Your task to perform on an android device: What's the weather going to be tomorrow? Image 0: 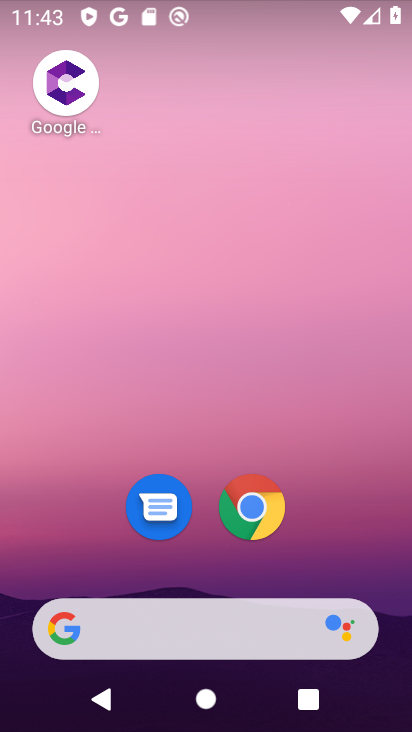
Step 0: click (167, 616)
Your task to perform on an android device: What's the weather going to be tomorrow? Image 1: 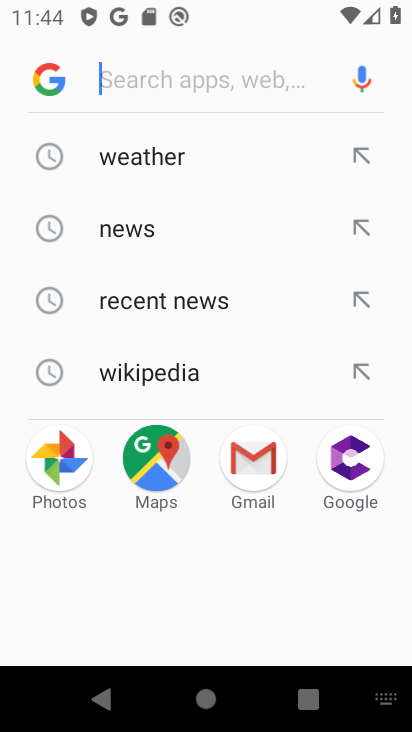
Step 1: type " What's the weather going to be tomorrow?"
Your task to perform on an android device: What's the weather going to be tomorrow? Image 2: 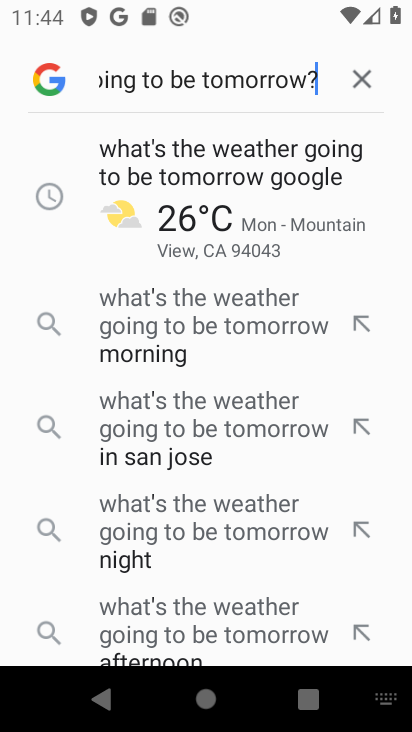
Step 2: click (284, 176)
Your task to perform on an android device: What's the weather going to be tomorrow? Image 3: 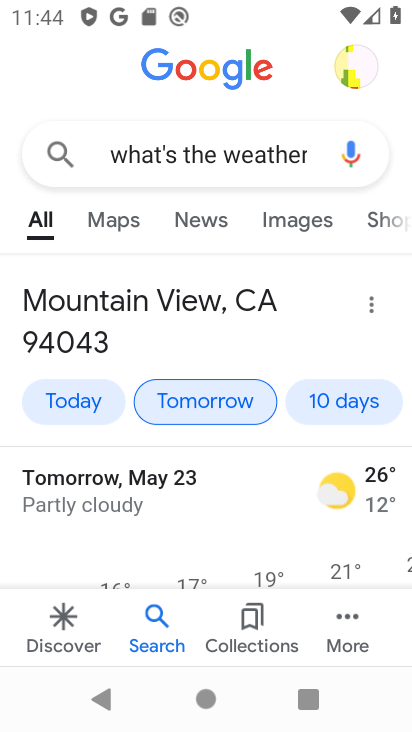
Step 3: task complete